Your task to perform on an android device: Search for pizza restaurants on Maps Image 0: 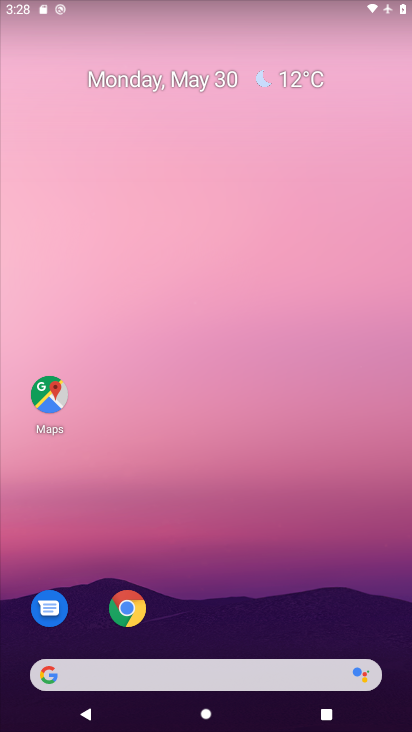
Step 0: click (47, 395)
Your task to perform on an android device: Search for pizza restaurants on Maps Image 1: 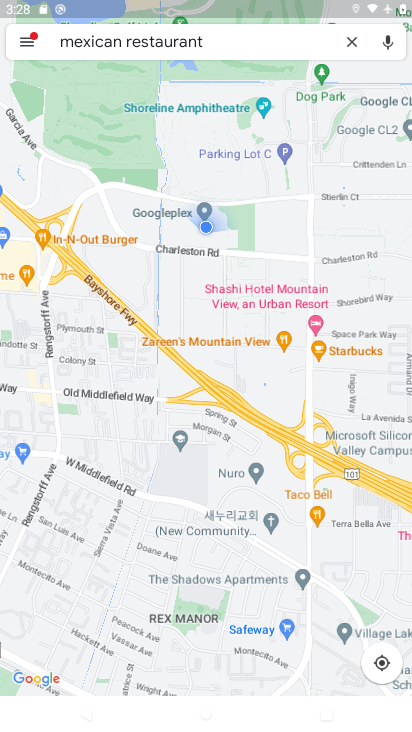
Step 1: click (347, 41)
Your task to perform on an android device: Search for pizza restaurants on Maps Image 2: 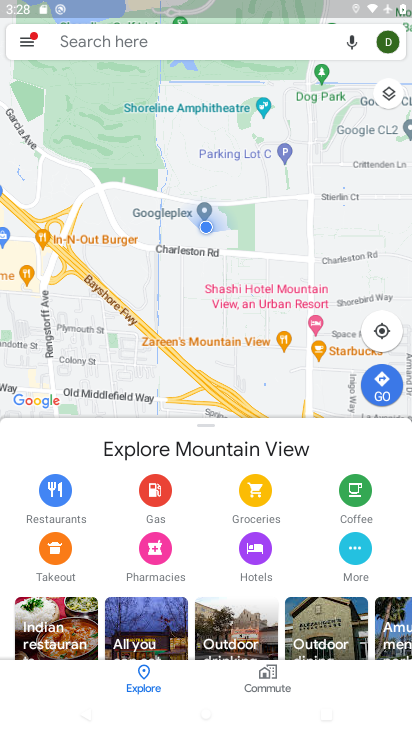
Step 2: click (184, 36)
Your task to perform on an android device: Search for pizza restaurants on Maps Image 3: 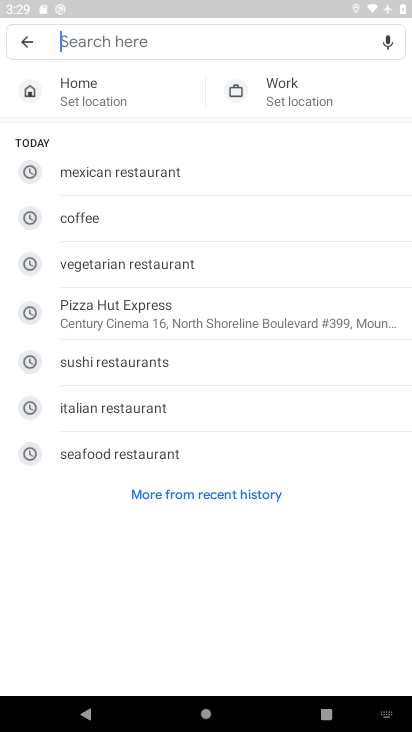
Step 3: type "pizza restaurants"
Your task to perform on an android device: Search for pizza restaurants on Maps Image 4: 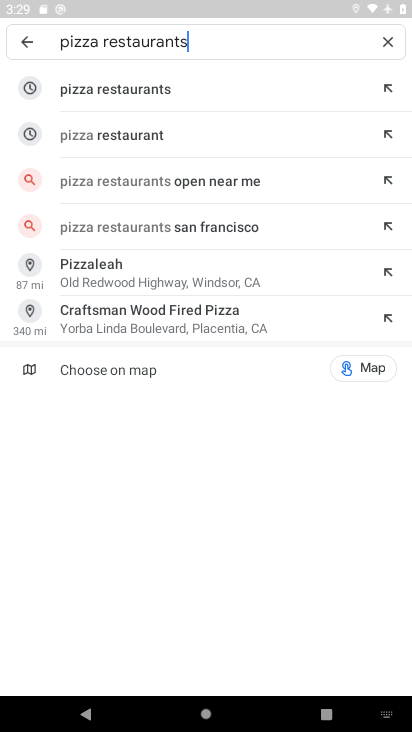
Step 4: click (146, 91)
Your task to perform on an android device: Search for pizza restaurants on Maps Image 5: 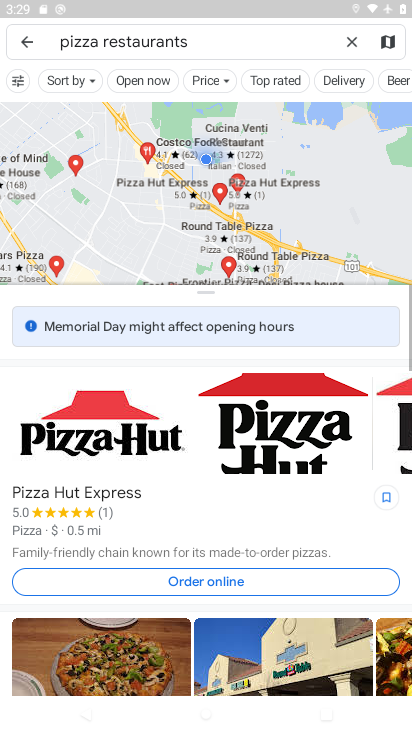
Step 5: task complete